Your task to perform on an android device: What's the weather going to be tomorrow? Image 0: 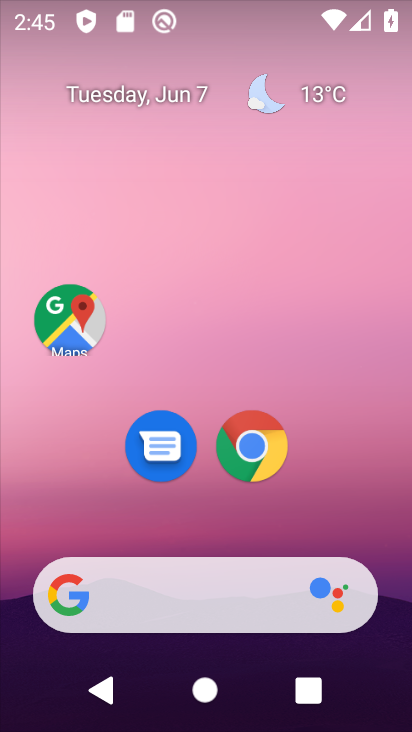
Step 0: click (314, 77)
Your task to perform on an android device: What's the weather going to be tomorrow? Image 1: 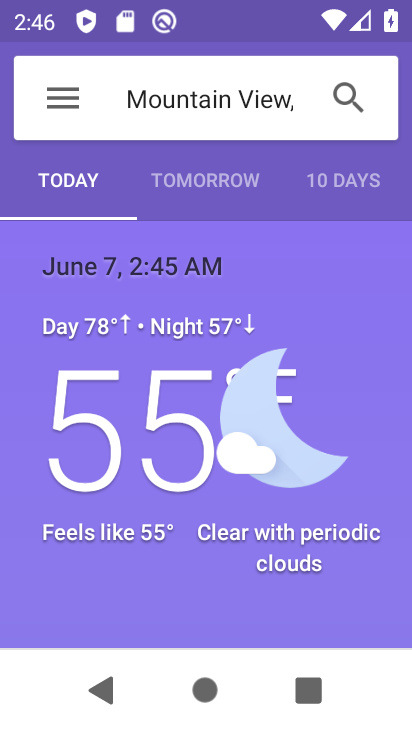
Step 1: click (200, 182)
Your task to perform on an android device: What's the weather going to be tomorrow? Image 2: 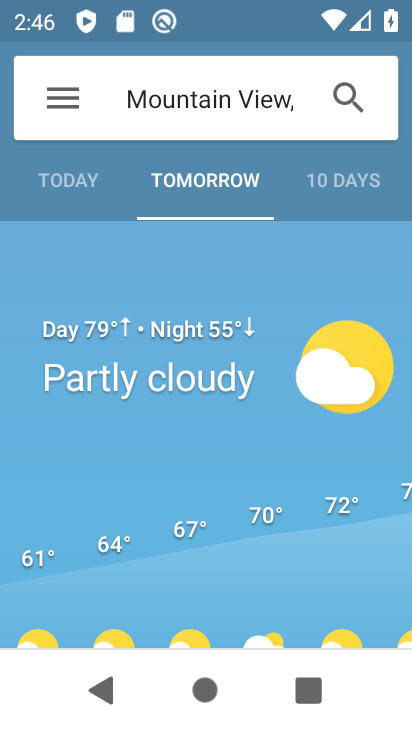
Step 2: task complete